Your task to perform on an android device: manage bookmarks in the chrome app Image 0: 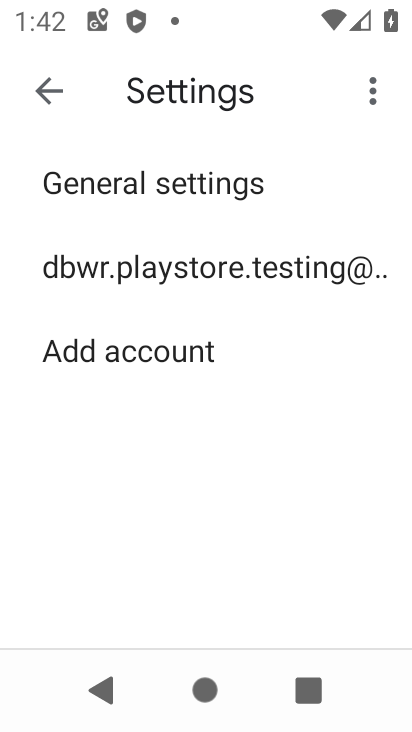
Step 0: press home button
Your task to perform on an android device: manage bookmarks in the chrome app Image 1: 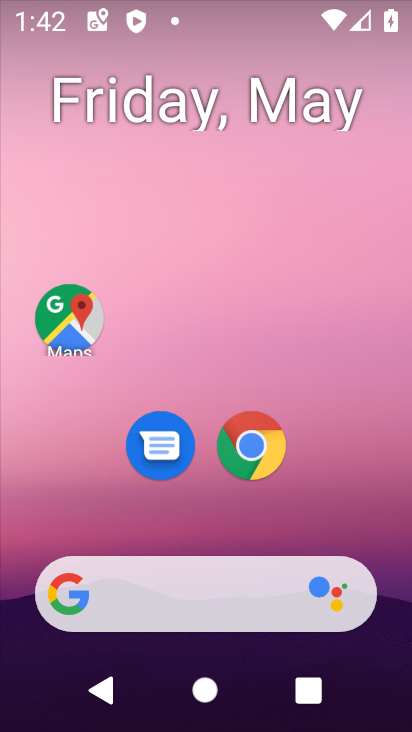
Step 1: click (252, 449)
Your task to perform on an android device: manage bookmarks in the chrome app Image 2: 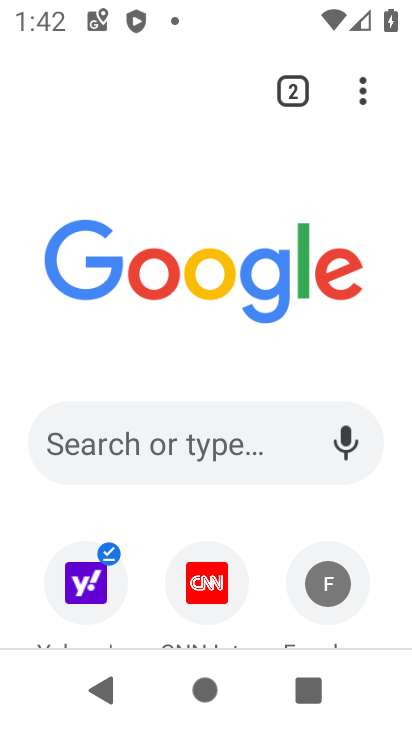
Step 2: click (364, 101)
Your task to perform on an android device: manage bookmarks in the chrome app Image 3: 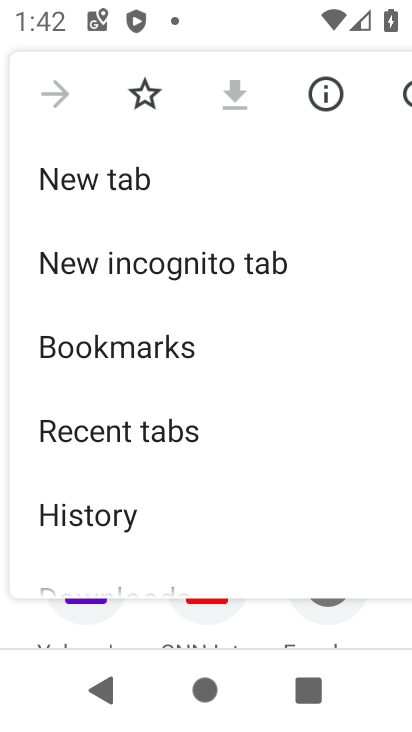
Step 3: click (95, 346)
Your task to perform on an android device: manage bookmarks in the chrome app Image 4: 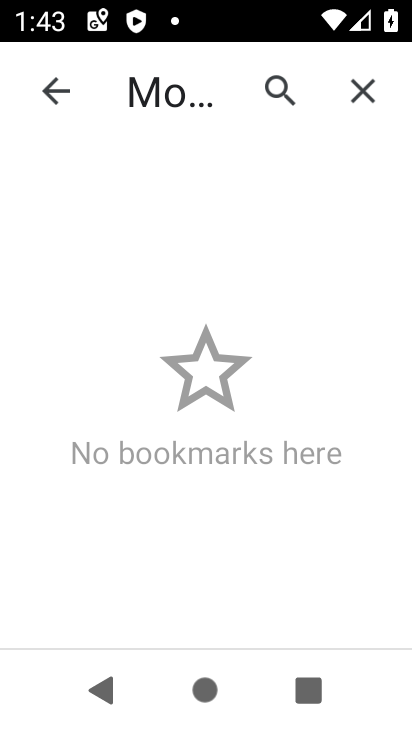
Step 4: task complete